Your task to perform on an android device: Open Wikipedia Image 0: 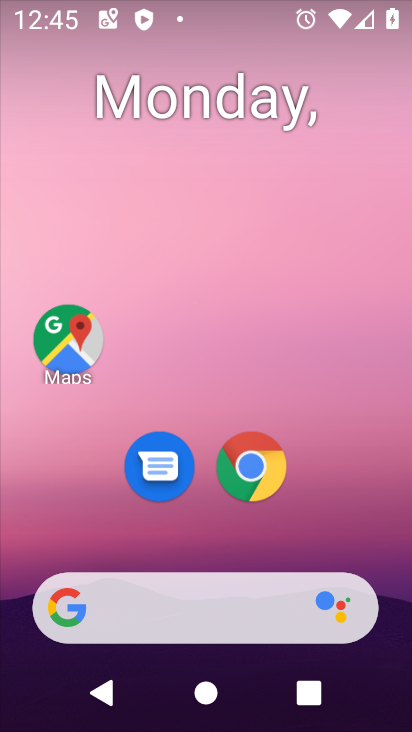
Step 0: drag from (387, 621) to (317, 49)
Your task to perform on an android device: Open Wikipedia Image 1: 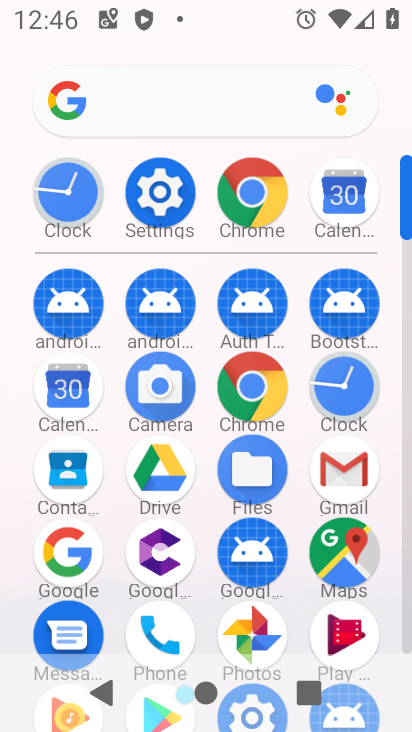
Step 1: click (94, 535)
Your task to perform on an android device: Open Wikipedia Image 2: 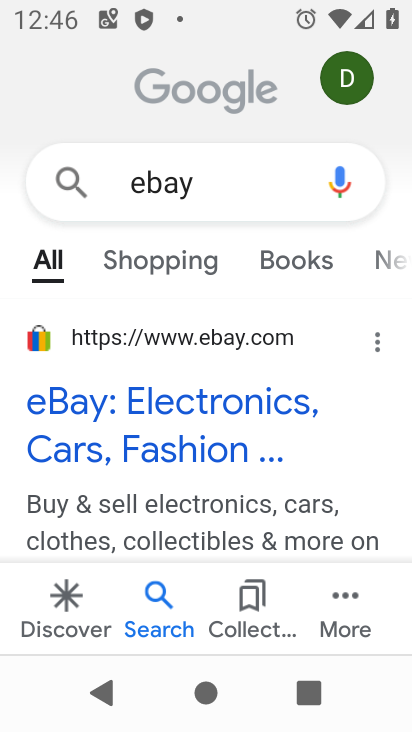
Step 2: press back button
Your task to perform on an android device: Open Wikipedia Image 3: 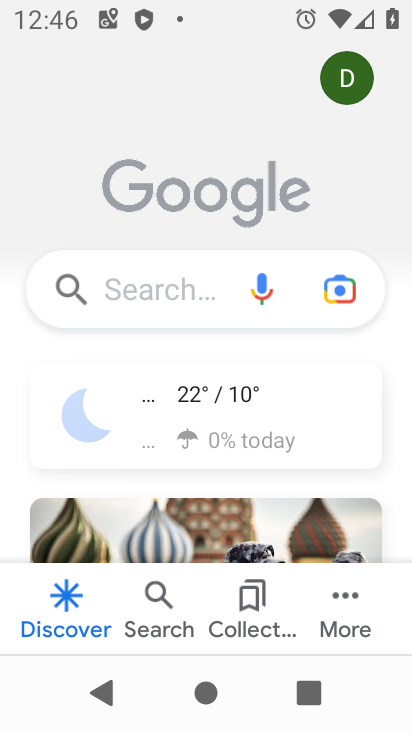
Step 3: click (171, 275)
Your task to perform on an android device: Open Wikipedia Image 4: 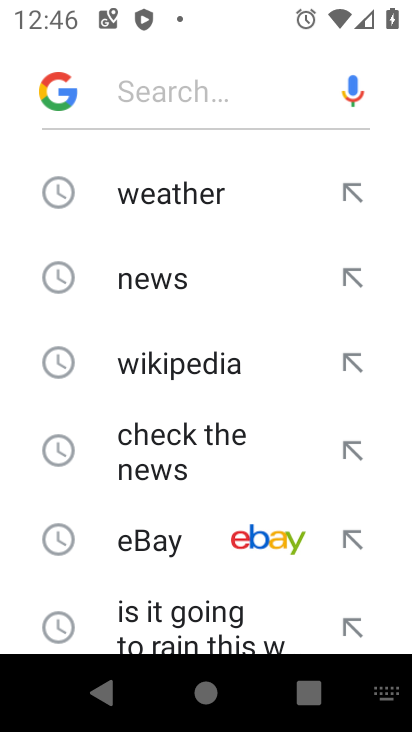
Step 4: click (200, 385)
Your task to perform on an android device: Open Wikipedia Image 5: 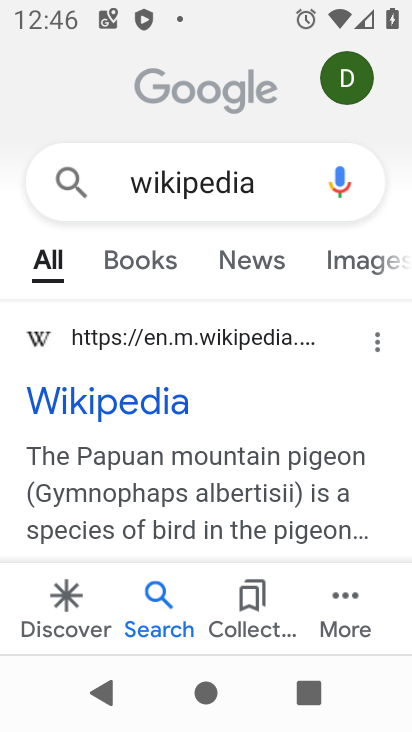
Step 5: task complete